Your task to perform on an android device: Open Yahoo.com Image 0: 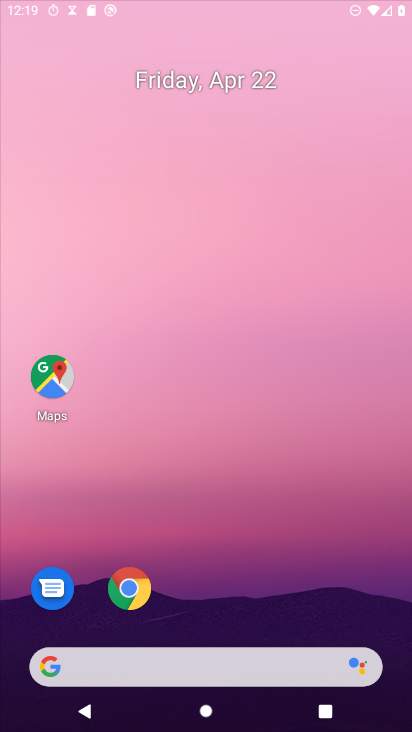
Step 0: click (122, 598)
Your task to perform on an android device: Open Yahoo.com Image 1: 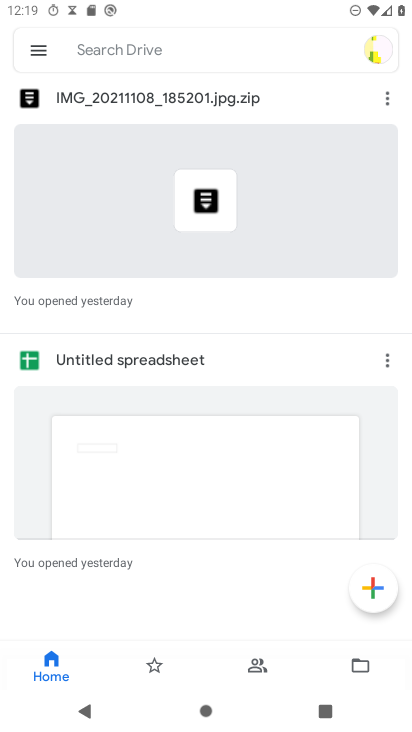
Step 1: press home button
Your task to perform on an android device: Open Yahoo.com Image 2: 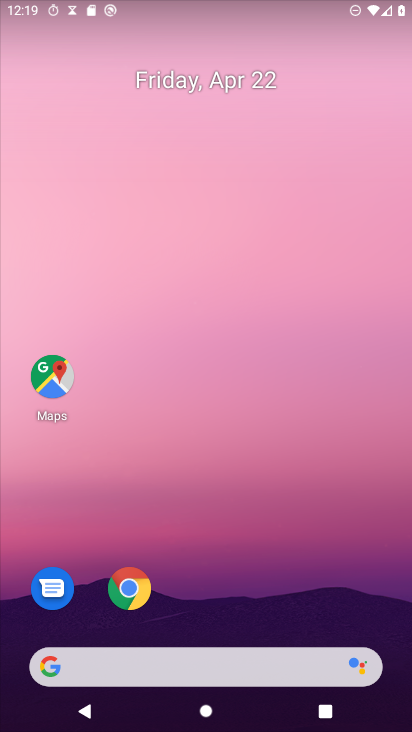
Step 2: click (132, 579)
Your task to perform on an android device: Open Yahoo.com Image 3: 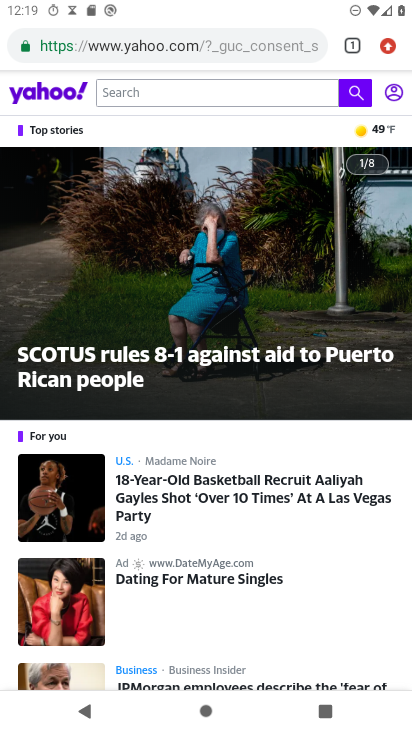
Step 3: task complete